Your task to perform on an android device: Open Google Maps and go to "Timeline" Image 0: 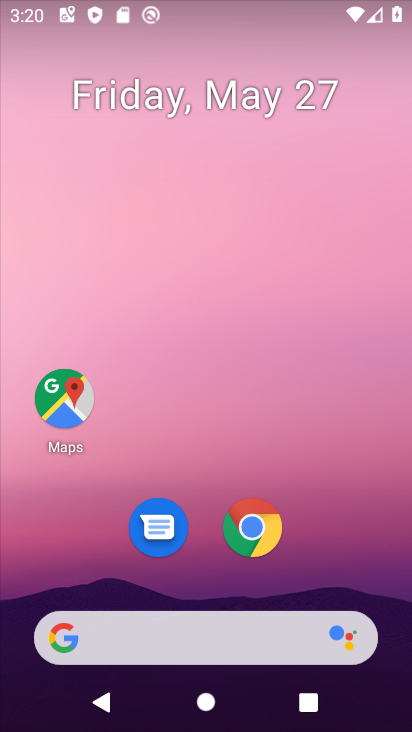
Step 0: press home button
Your task to perform on an android device: Open Google Maps and go to "Timeline" Image 1: 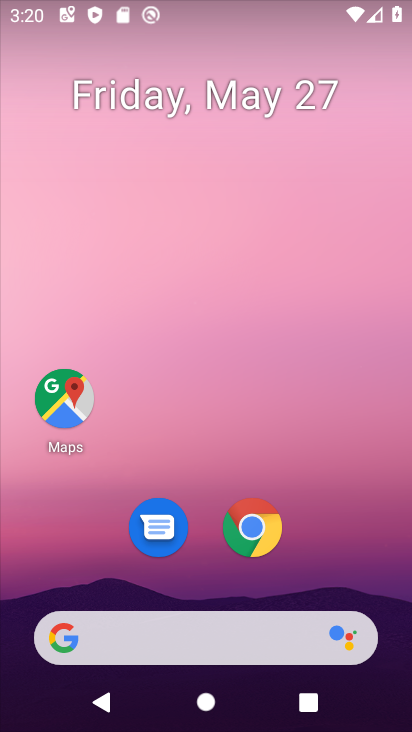
Step 1: drag from (321, 553) to (277, 37)
Your task to perform on an android device: Open Google Maps and go to "Timeline" Image 2: 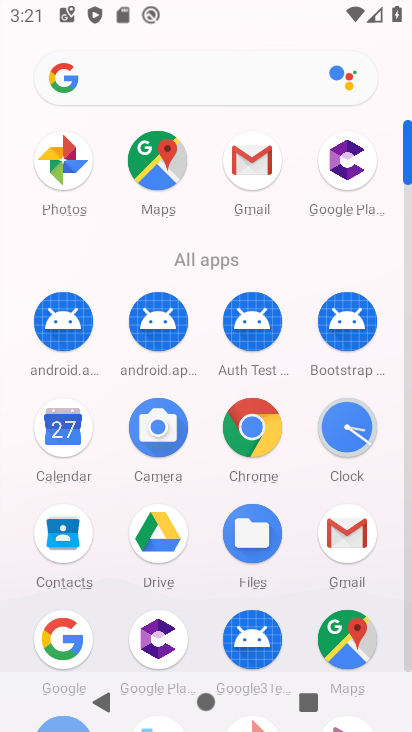
Step 2: click (371, 632)
Your task to perform on an android device: Open Google Maps and go to "Timeline" Image 3: 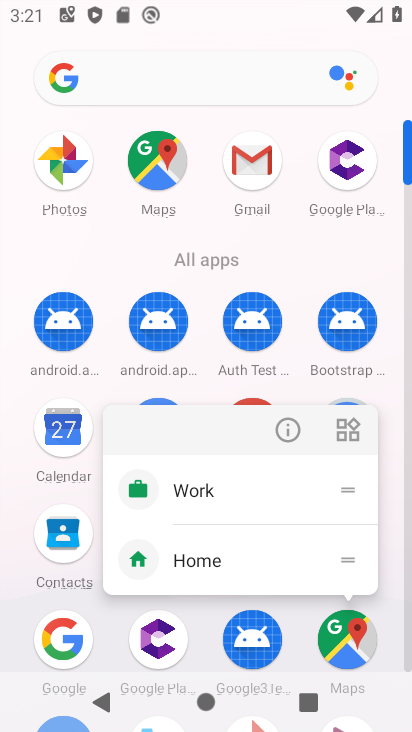
Step 3: click (355, 617)
Your task to perform on an android device: Open Google Maps and go to "Timeline" Image 4: 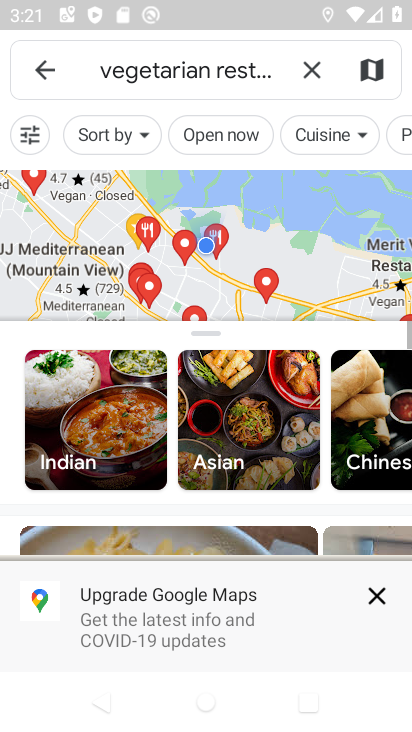
Step 4: click (15, 65)
Your task to perform on an android device: Open Google Maps and go to "Timeline" Image 5: 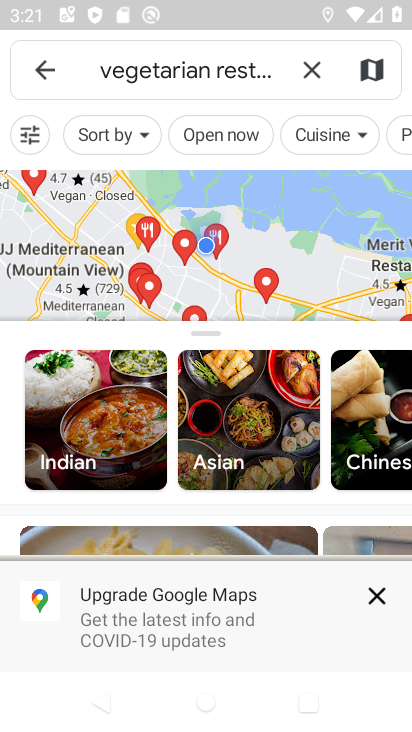
Step 5: click (41, 55)
Your task to perform on an android device: Open Google Maps and go to "Timeline" Image 6: 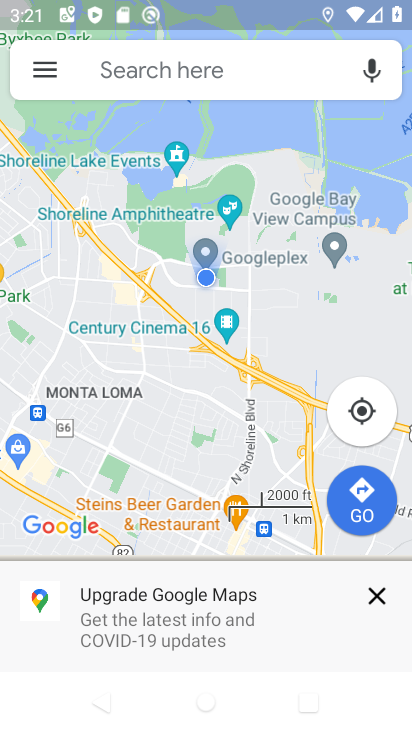
Step 6: click (41, 55)
Your task to perform on an android device: Open Google Maps and go to "Timeline" Image 7: 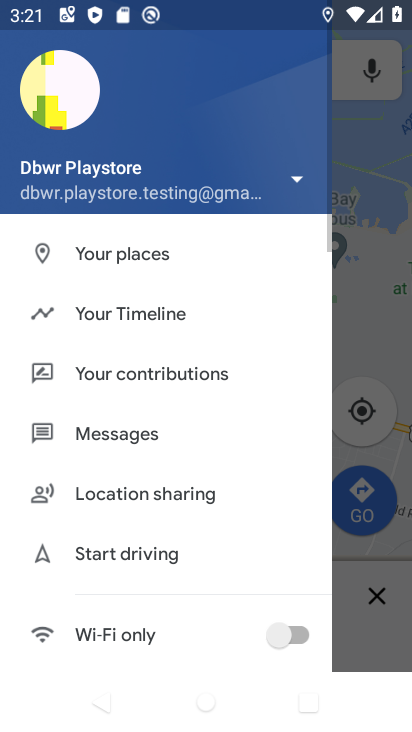
Step 7: click (130, 301)
Your task to perform on an android device: Open Google Maps and go to "Timeline" Image 8: 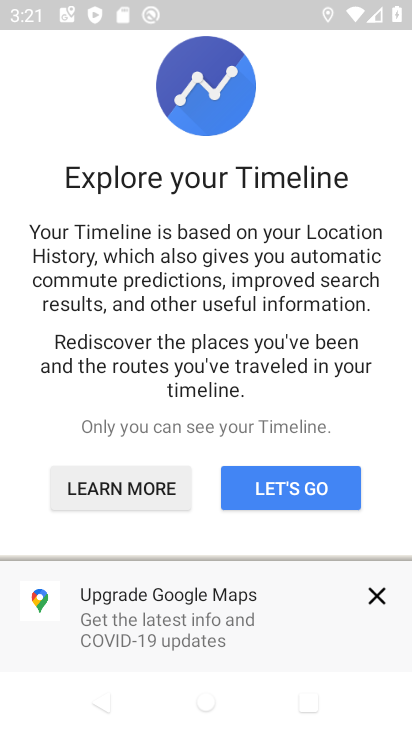
Step 8: click (268, 503)
Your task to perform on an android device: Open Google Maps and go to "Timeline" Image 9: 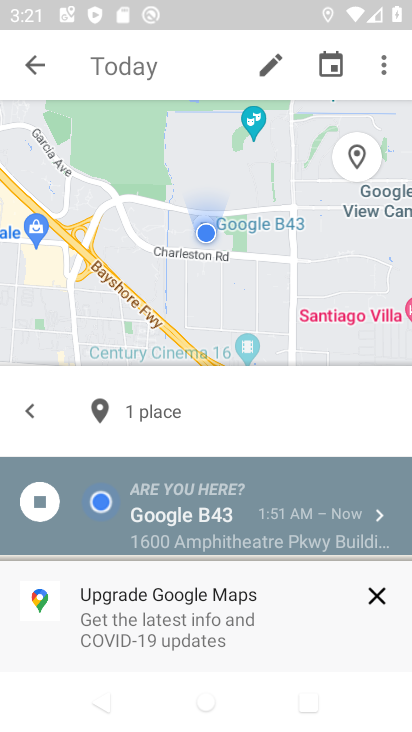
Step 9: task complete